Your task to perform on an android device: change alarm snooze length Image 0: 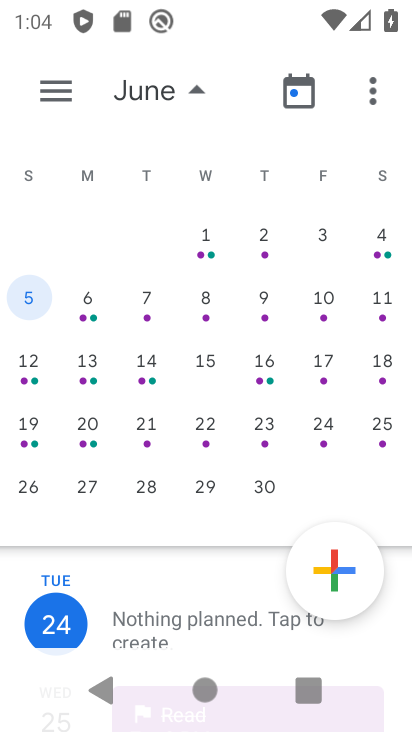
Step 0: press home button
Your task to perform on an android device: change alarm snooze length Image 1: 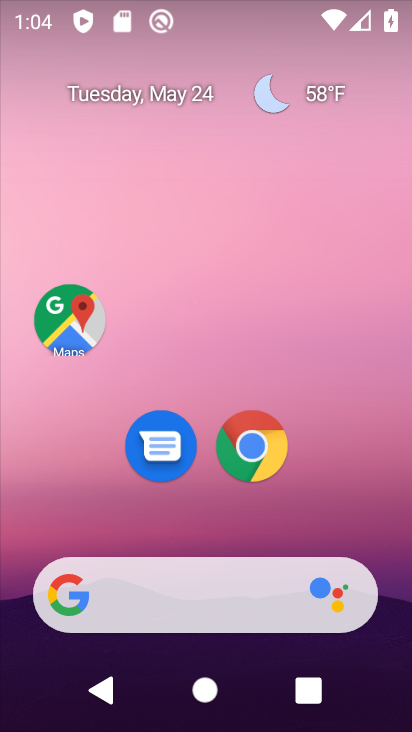
Step 1: drag from (245, 546) to (264, 126)
Your task to perform on an android device: change alarm snooze length Image 2: 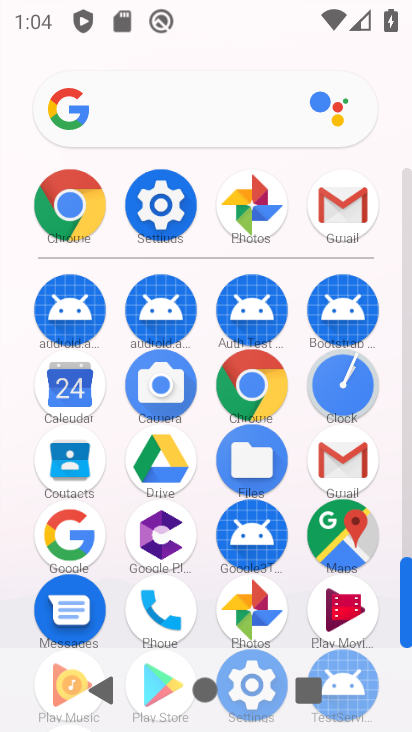
Step 2: drag from (249, 477) to (244, 150)
Your task to perform on an android device: change alarm snooze length Image 3: 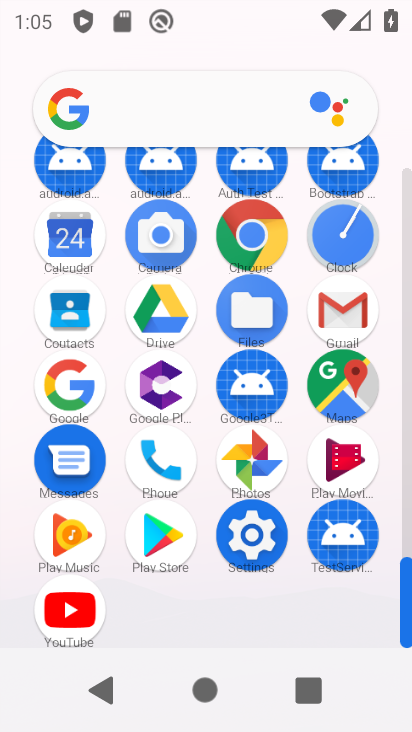
Step 3: click (349, 254)
Your task to perform on an android device: change alarm snooze length Image 4: 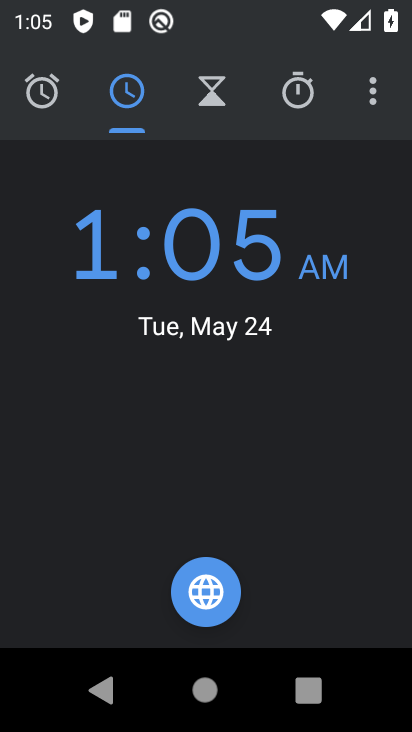
Step 4: click (374, 96)
Your task to perform on an android device: change alarm snooze length Image 5: 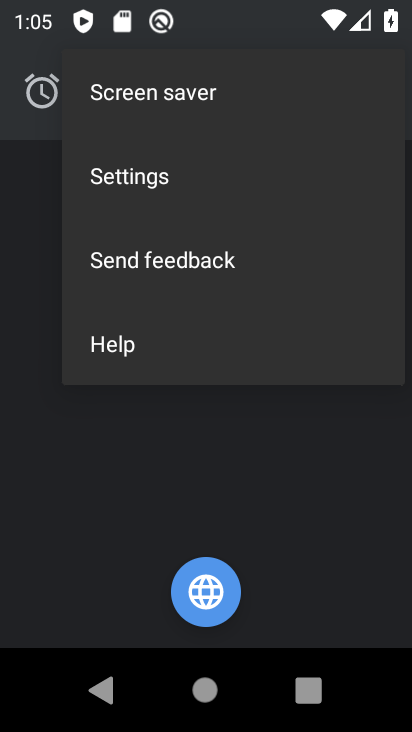
Step 5: click (134, 184)
Your task to perform on an android device: change alarm snooze length Image 6: 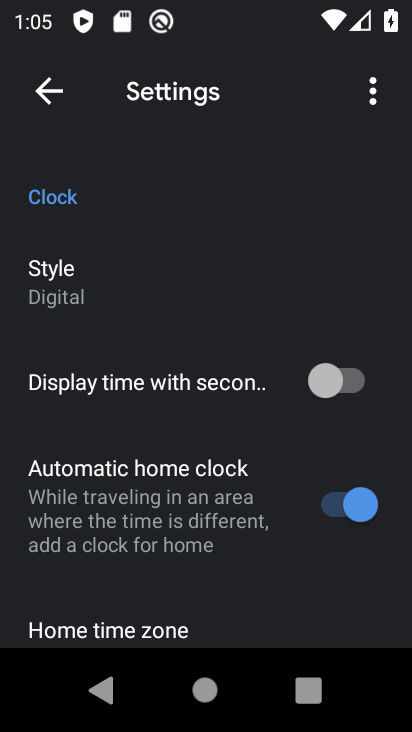
Step 6: drag from (115, 481) to (79, 64)
Your task to perform on an android device: change alarm snooze length Image 7: 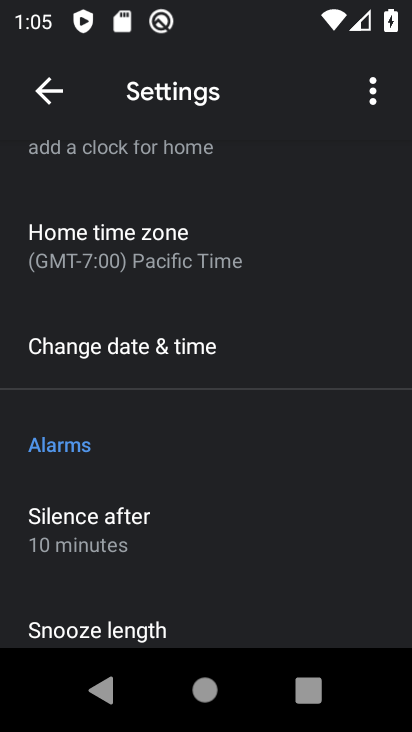
Step 7: drag from (124, 420) to (113, 202)
Your task to perform on an android device: change alarm snooze length Image 8: 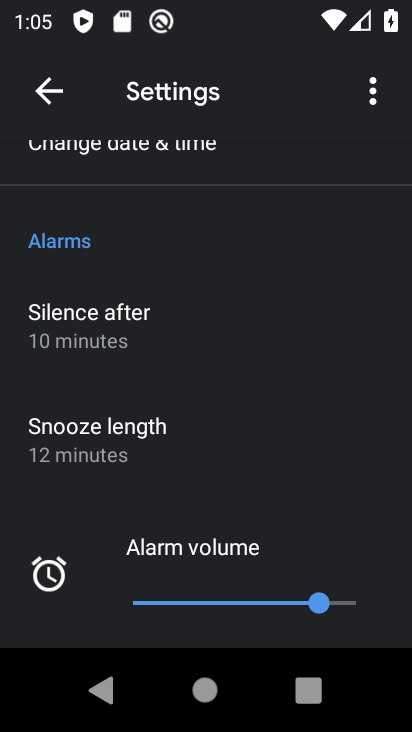
Step 8: click (167, 442)
Your task to perform on an android device: change alarm snooze length Image 9: 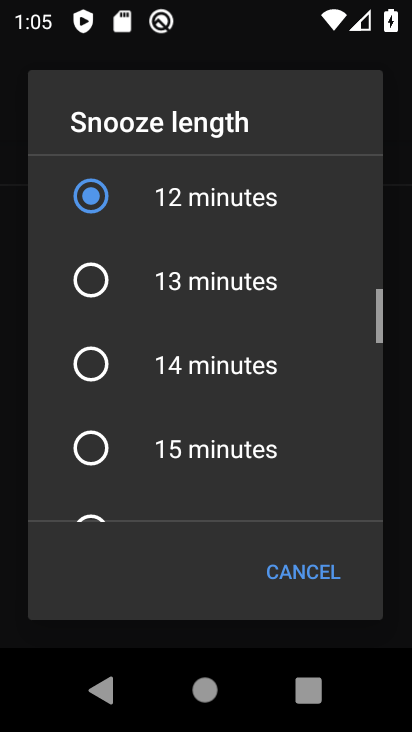
Step 9: drag from (135, 273) to (103, 550)
Your task to perform on an android device: change alarm snooze length Image 10: 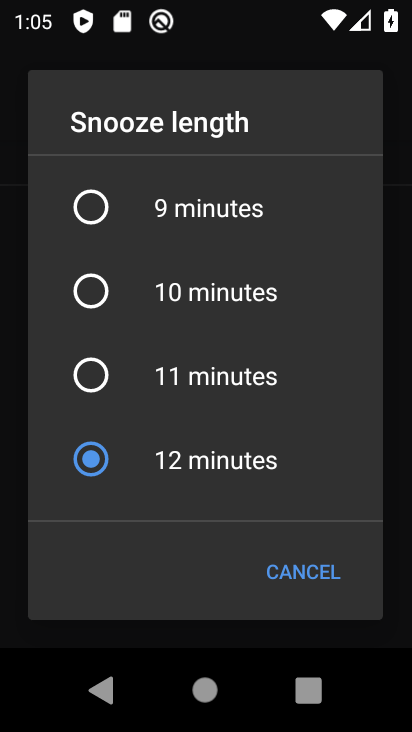
Step 10: click (94, 300)
Your task to perform on an android device: change alarm snooze length Image 11: 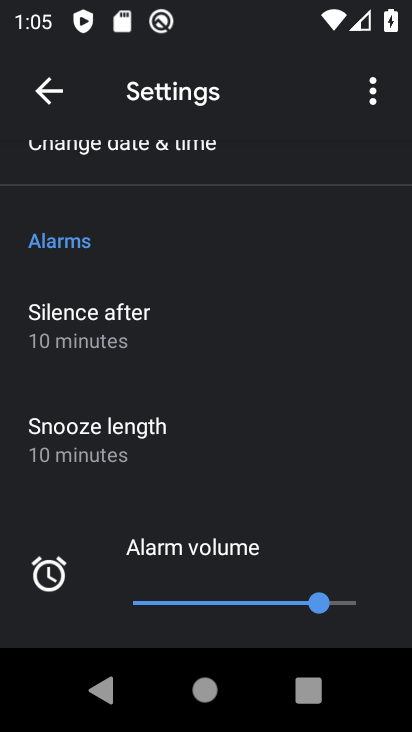
Step 11: task complete